Your task to perform on an android device: Open wifi settings Image 0: 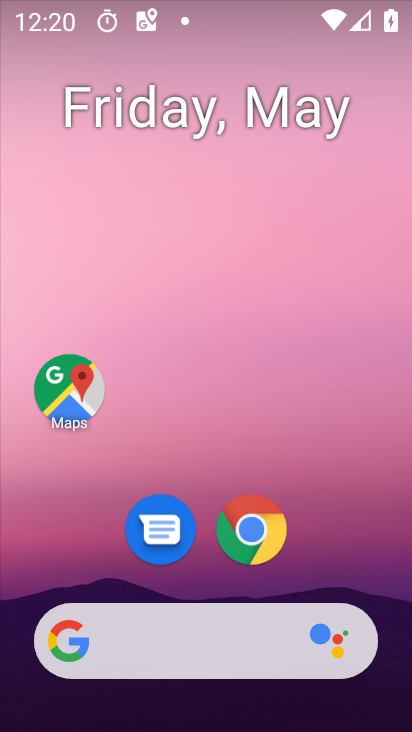
Step 0: drag from (198, 607) to (190, 164)
Your task to perform on an android device: Open wifi settings Image 1: 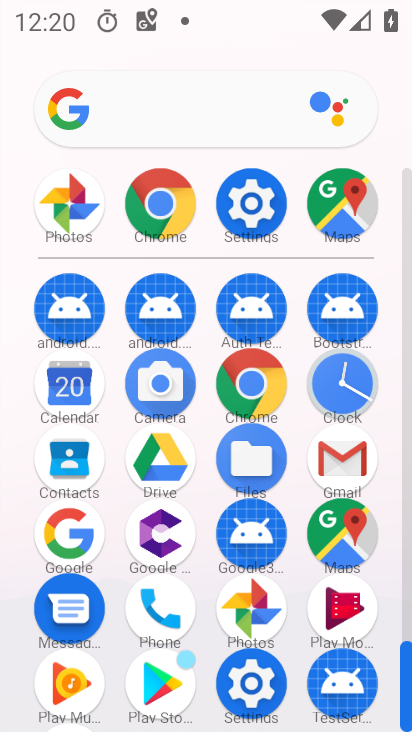
Step 1: click (253, 207)
Your task to perform on an android device: Open wifi settings Image 2: 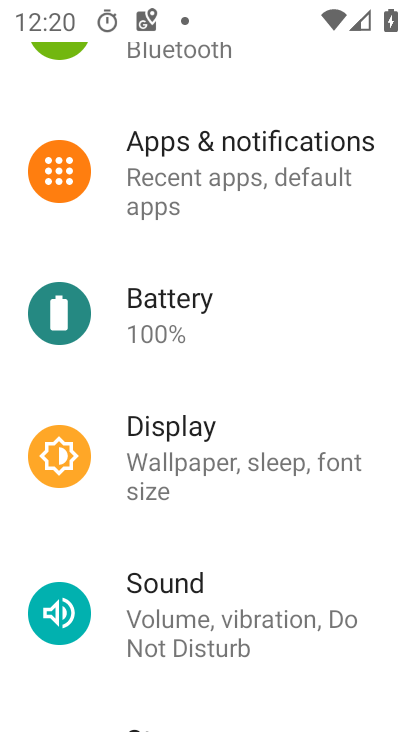
Step 2: drag from (254, 212) to (255, 726)
Your task to perform on an android device: Open wifi settings Image 3: 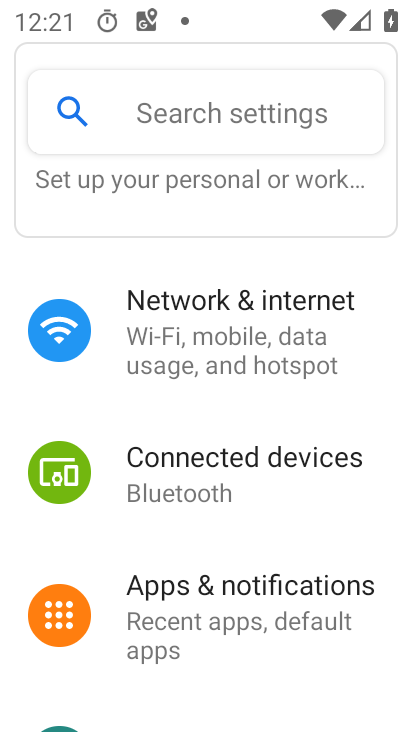
Step 3: click (241, 351)
Your task to perform on an android device: Open wifi settings Image 4: 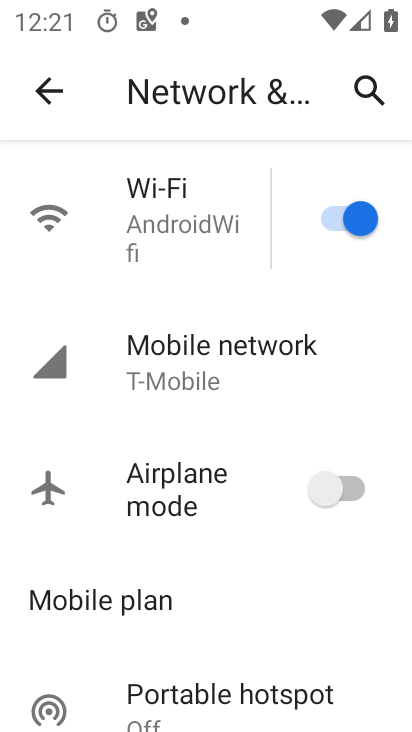
Step 4: click (168, 212)
Your task to perform on an android device: Open wifi settings Image 5: 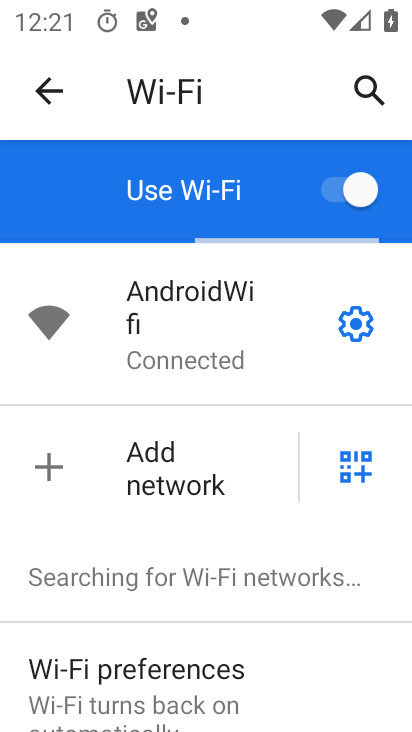
Step 5: task complete